Your task to perform on an android device: Show me popular videos on Youtube Image 0: 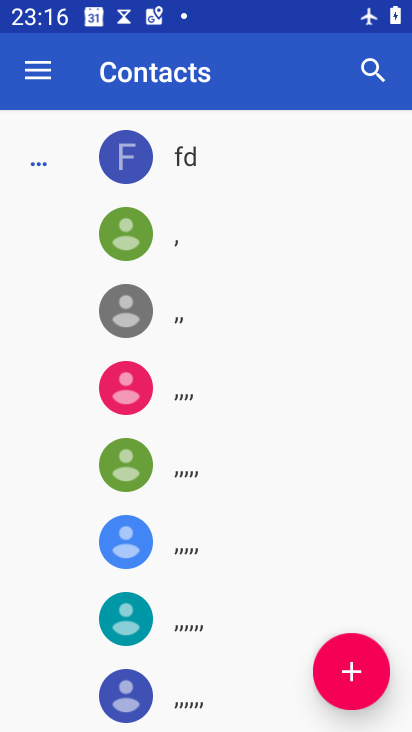
Step 0: press home button
Your task to perform on an android device: Show me popular videos on Youtube Image 1: 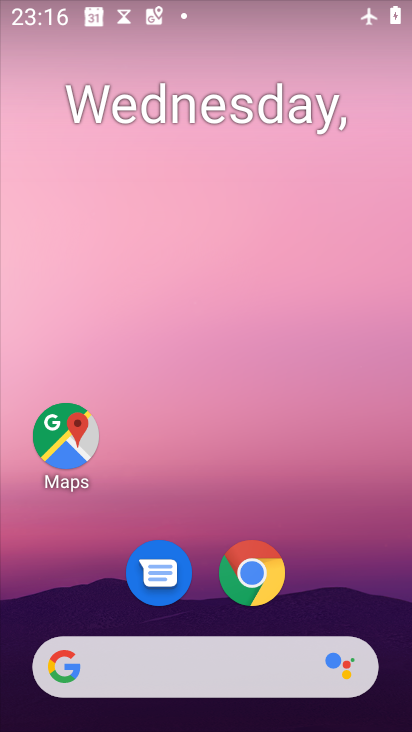
Step 1: drag from (324, 515) to (310, 181)
Your task to perform on an android device: Show me popular videos on Youtube Image 2: 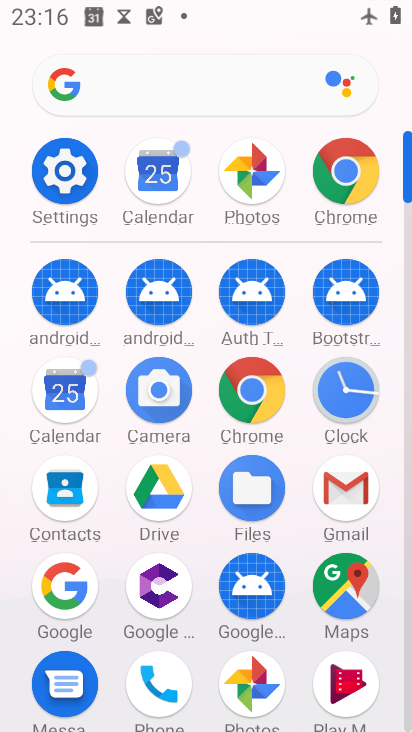
Step 2: drag from (322, 618) to (317, 280)
Your task to perform on an android device: Show me popular videos on Youtube Image 3: 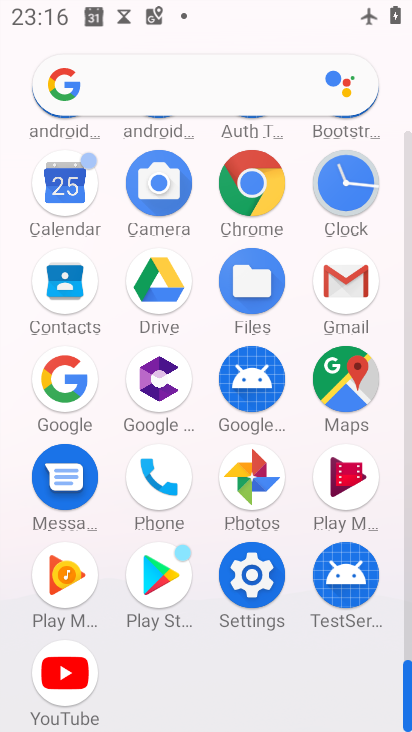
Step 3: click (58, 660)
Your task to perform on an android device: Show me popular videos on Youtube Image 4: 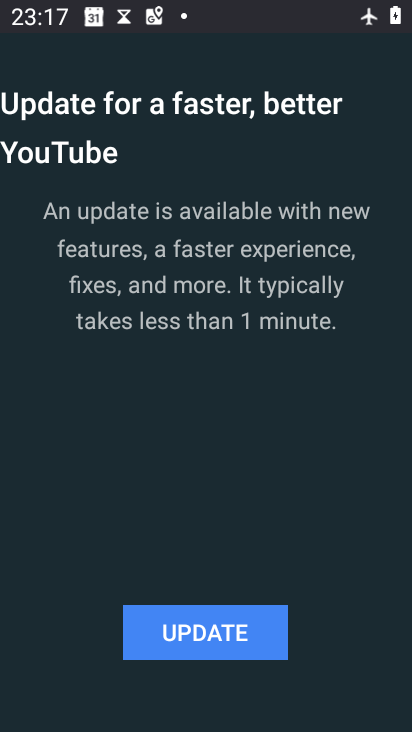
Step 4: task complete